Your task to perform on an android device: Go to calendar. Show me events next week Image 0: 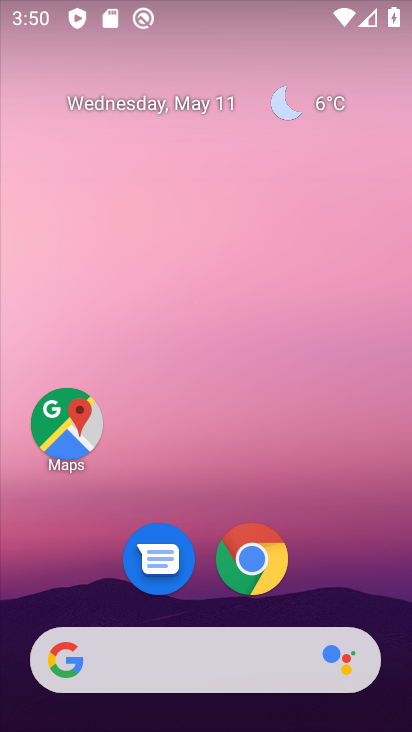
Step 0: drag from (325, 576) to (304, 96)
Your task to perform on an android device: Go to calendar. Show me events next week Image 1: 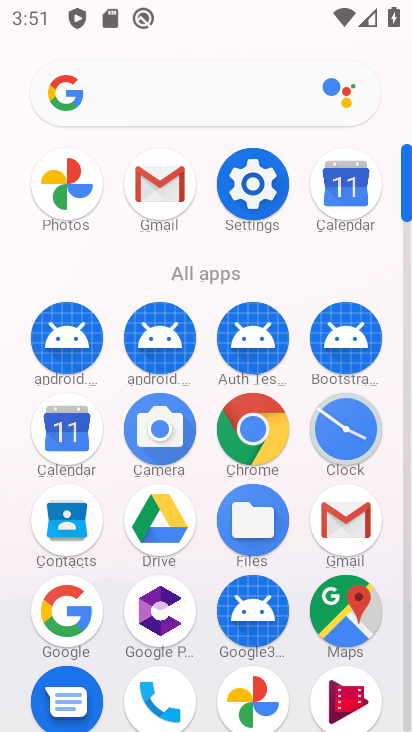
Step 1: click (54, 448)
Your task to perform on an android device: Go to calendar. Show me events next week Image 2: 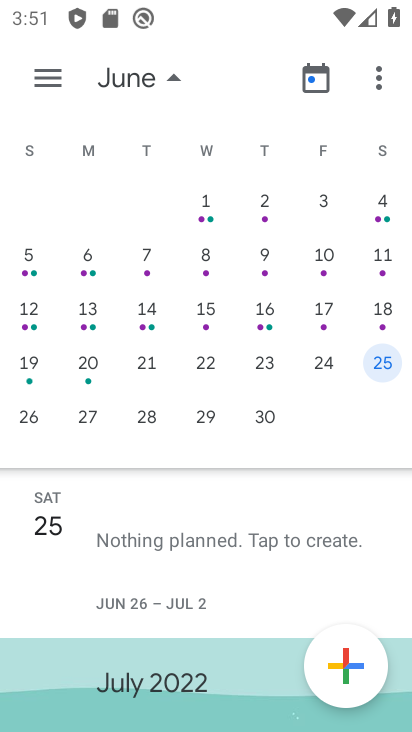
Step 2: drag from (339, 411) to (0, 465)
Your task to perform on an android device: Go to calendar. Show me events next week Image 3: 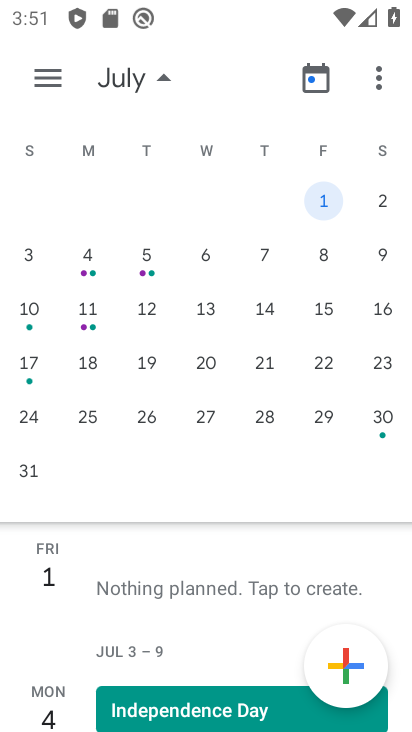
Step 3: click (90, 265)
Your task to perform on an android device: Go to calendar. Show me events next week Image 4: 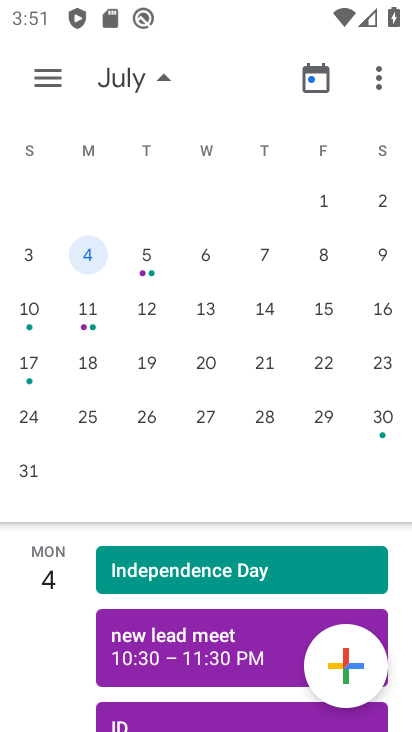
Step 4: task complete